Your task to perform on an android device: When is my next meeting? Image 0: 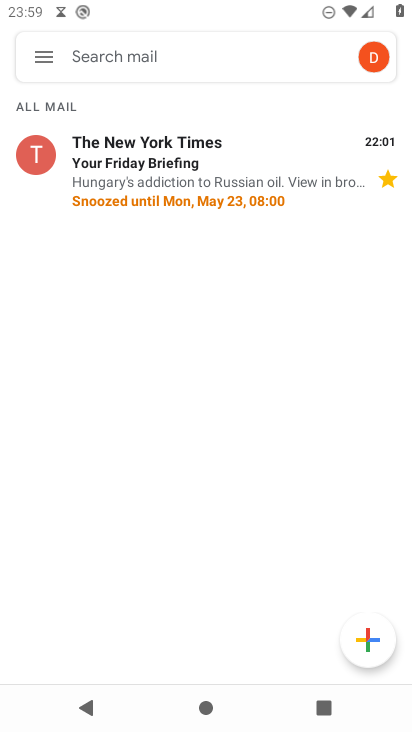
Step 0: press home button
Your task to perform on an android device: When is my next meeting? Image 1: 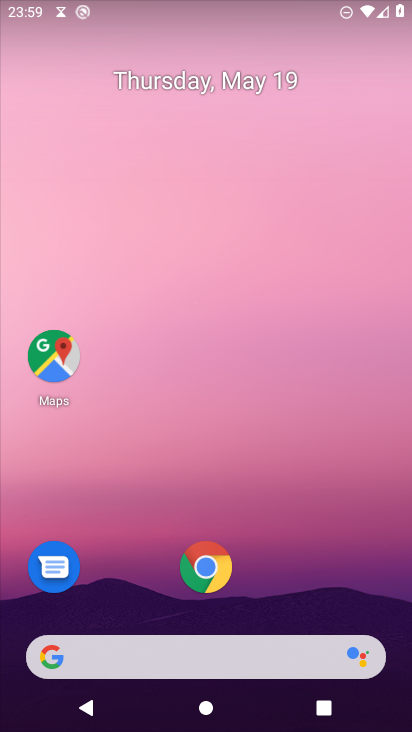
Step 1: drag from (251, 615) to (307, 45)
Your task to perform on an android device: When is my next meeting? Image 2: 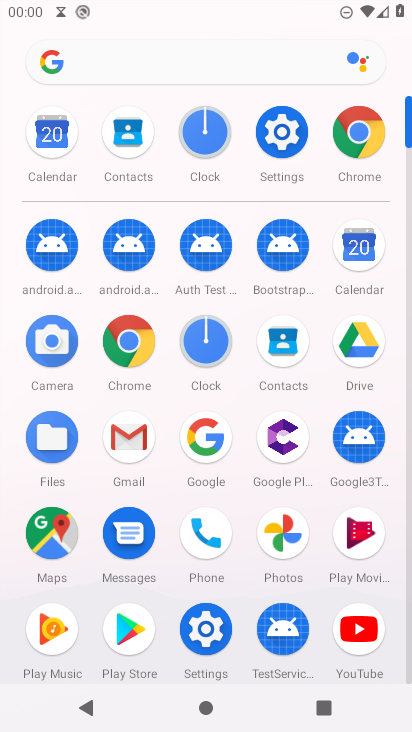
Step 2: click (356, 242)
Your task to perform on an android device: When is my next meeting? Image 3: 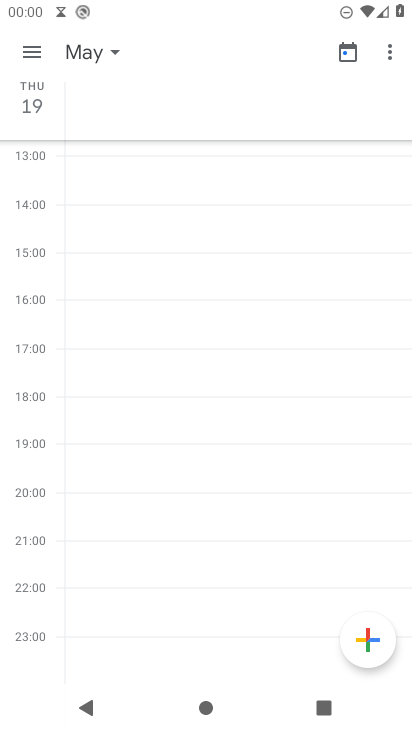
Step 3: click (49, 116)
Your task to perform on an android device: When is my next meeting? Image 4: 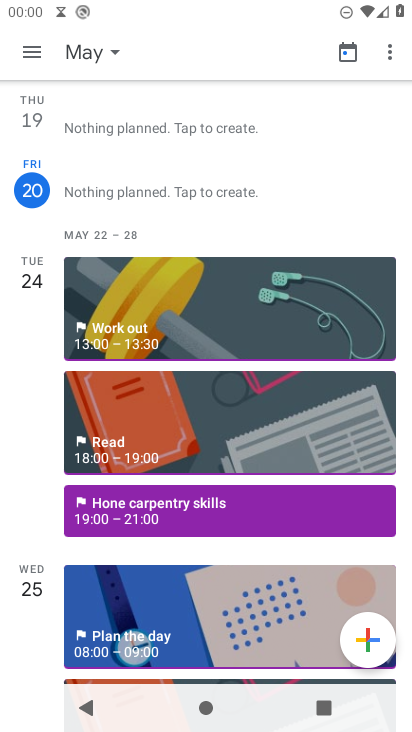
Step 4: task complete